Your task to perform on an android device: open a new tab in the chrome app Image 0: 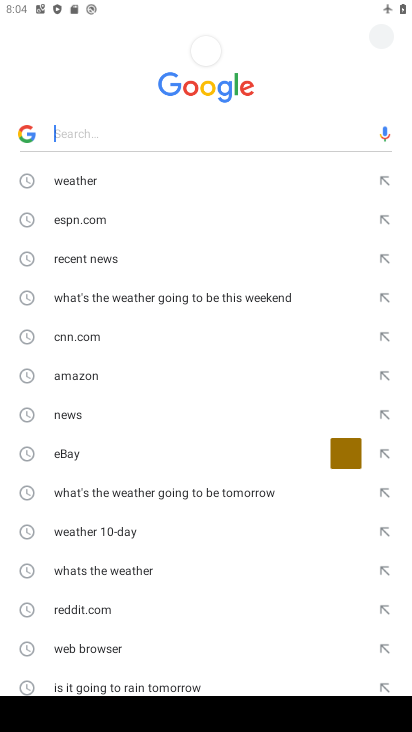
Step 0: press home button
Your task to perform on an android device: open a new tab in the chrome app Image 1: 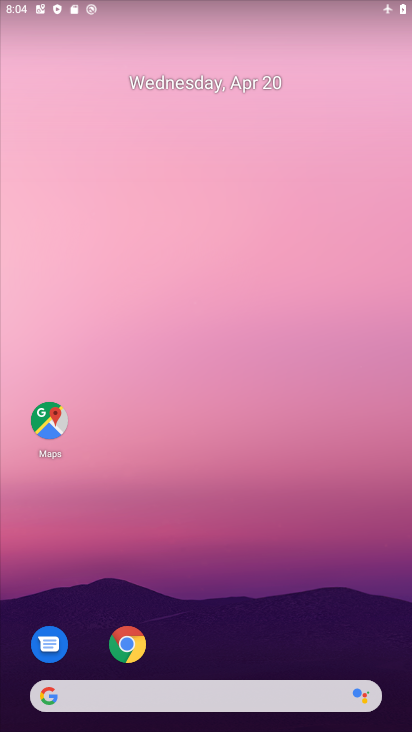
Step 1: drag from (340, 625) to (278, 54)
Your task to perform on an android device: open a new tab in the chrome app Image 2: 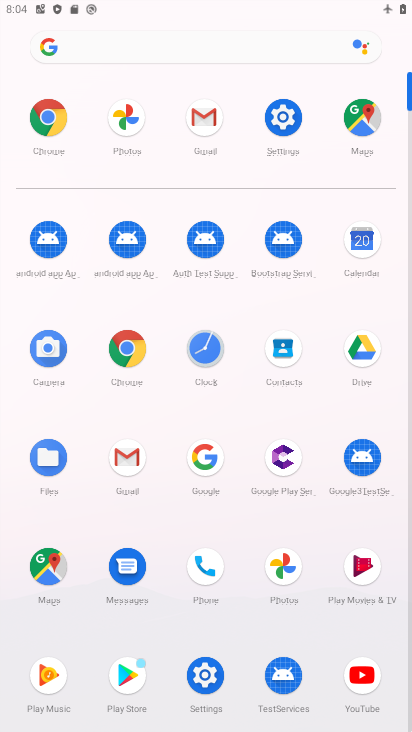
Step 2: click (41, 125)
Your task to perform on an android device: open a new tab in the chrome app Image 3: 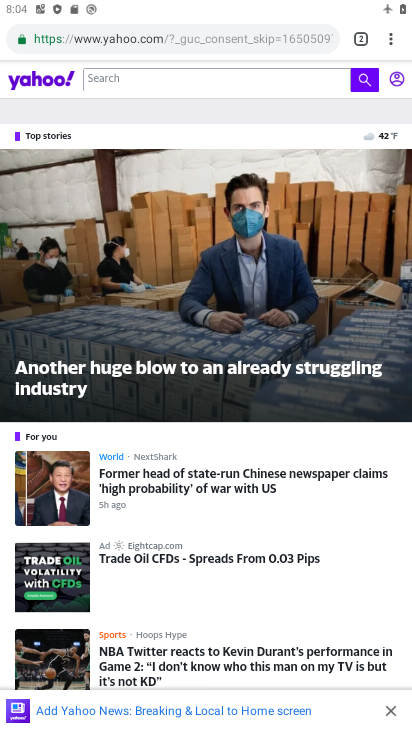
Step 3: press back button
Your task to perform on an android device: open a new tab in the chrome app Image 4: 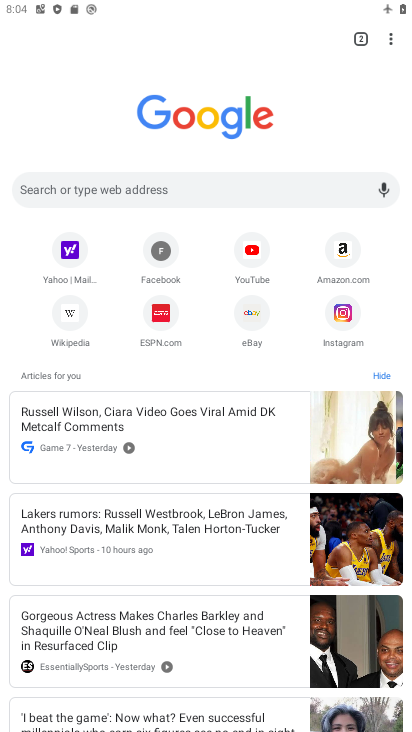
Step 4: click (392, 36)
Your task to perform on an android device: open a new tab in the chrome app Image 5: 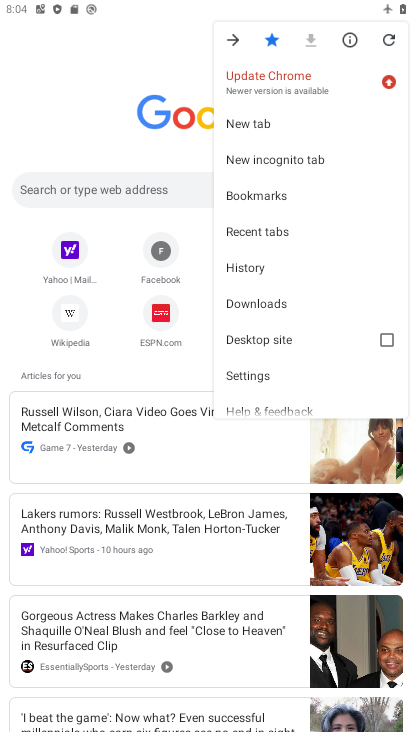
Step 5: click (307, 121)
Your task to perform on an android device: open a new tab in the chrome app Image 6: 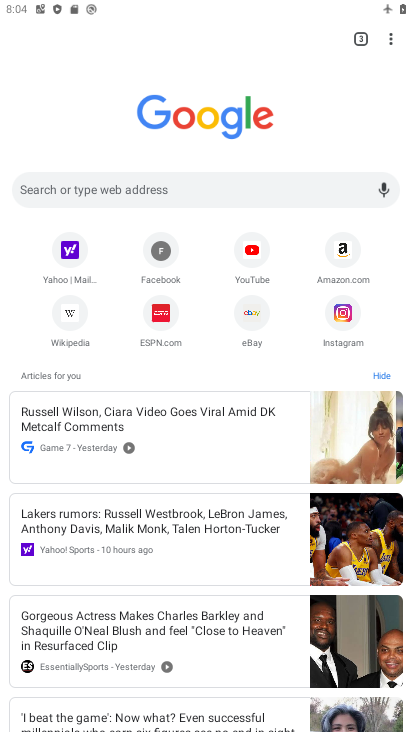
Step 6: task complete